Your task to perform on an android device: see creations saved in the google photos Image 0: 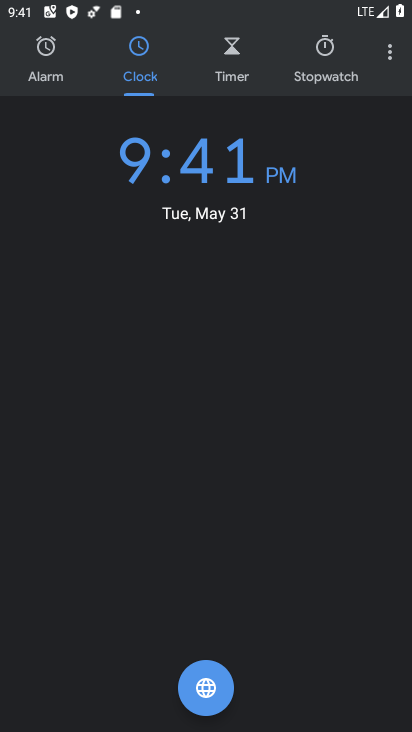
Step 0: press home button
Your task to perform on an android device: see creations saved in the google photos Image 1: 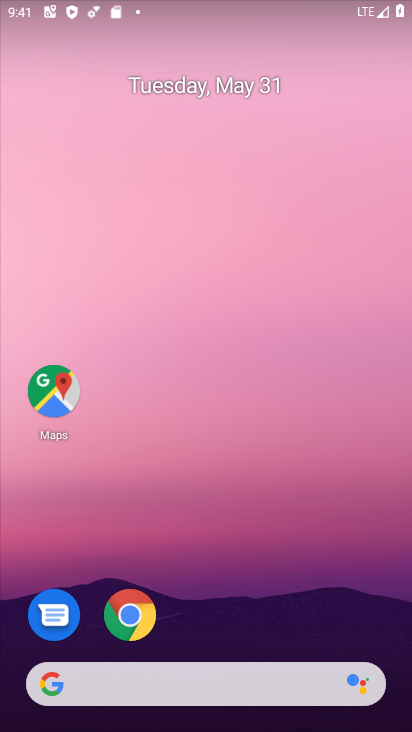
Step 1: drag from (281, 548) to (331, 69)
Your task to perform on an android device: see creations saved in the google photos Image 2: 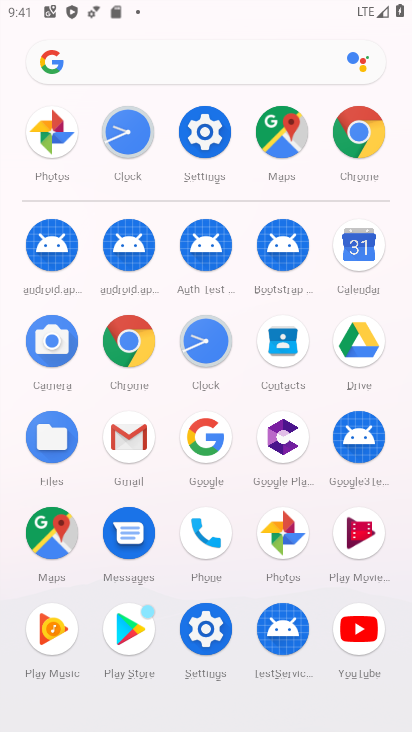
Step 2: click (284, 527)
Your task to perform on an android device: see creations saved in the google photos Image 3: 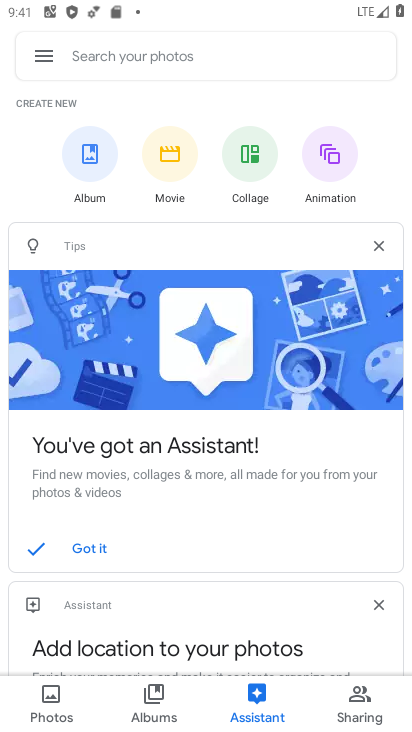
Step 3: click (134, 702)
Your task to perform on an android device: see creations saved in the google photos Image 4: 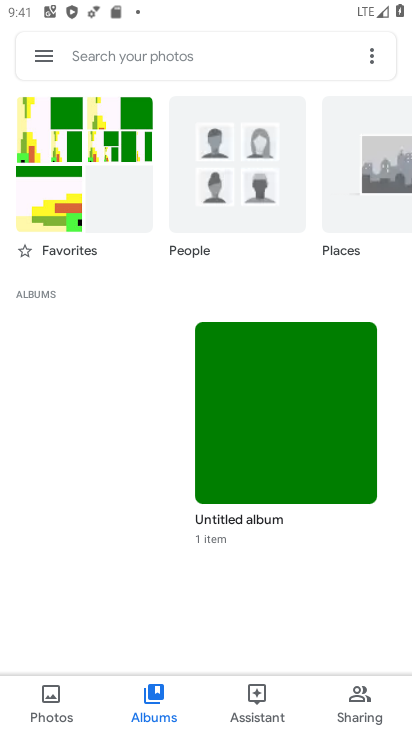
Step 4: task complete